Your task to perform on an android device: install app "Etsy: Buy & Sell Unique Items" Image 0: 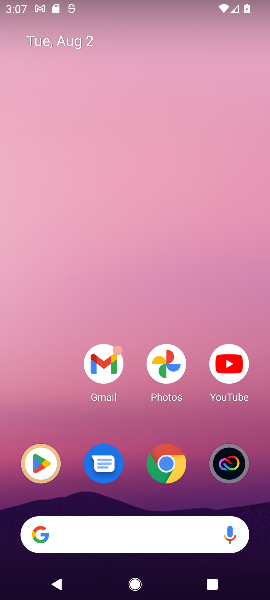
Step 0: press home button
Your task to perform on an android device: install app "Etsy: Buy & Sell Unique Items" Image 1: 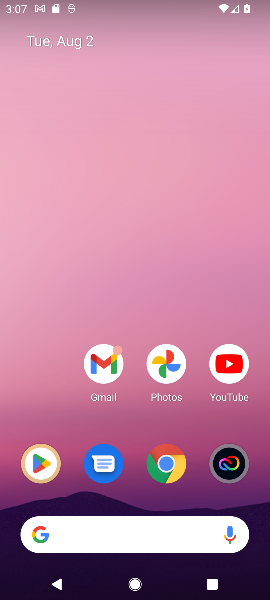
Step 1: click (35, 458)
Your task to perform on an android device: install app "Etsy: Buy & Sell Unique Items" Image 2: 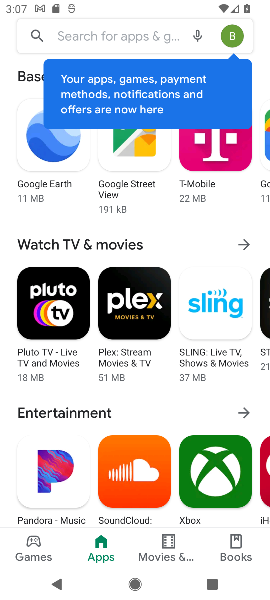
Step 2: click (151, 31)
Your task to perform on an android device: install app "Etsy: Buy & Sell Unique Items" Image 3: 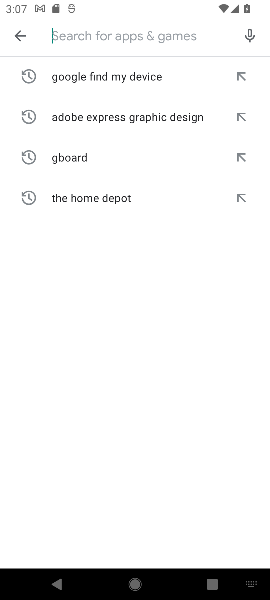
Step 3: type "Etsy: Buy & Sell Unique Items"
Your task to perform on an android device: install app "Etsy: Buy & Sell Unique Items" Image 4: 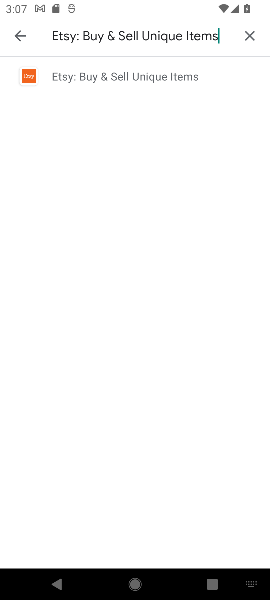
Step 4: click (85, 77)
Your task to perform on an android device: install app "Etsy: Buy & Sell Unique Items" Image 5: 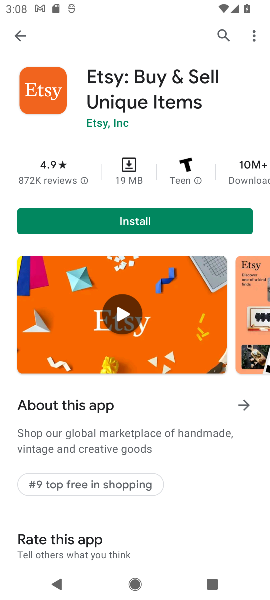
Step 5: click (143, 220)
Your task to perform on an android device: install app "Etsy: Buy & Sell Unique Items" Image 6: 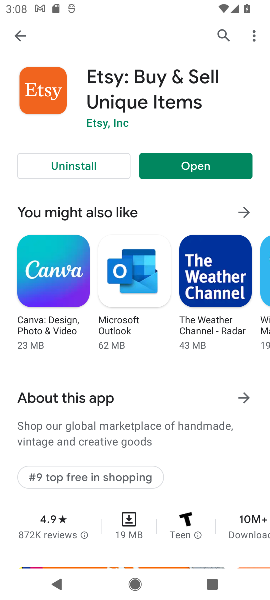
Step 6: task complete